Your task to perform on an android device: Go to network settings Image 0: 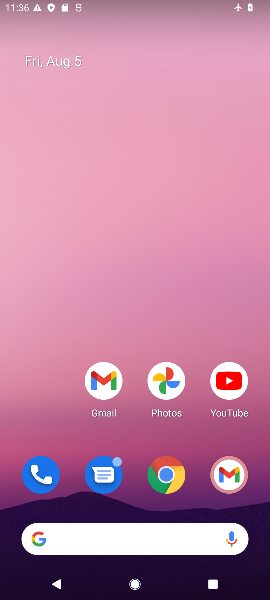
Step 0: drag from (160, 508) to (171, 127)
Your task to perform on an android device: Go to network settings Image 1: 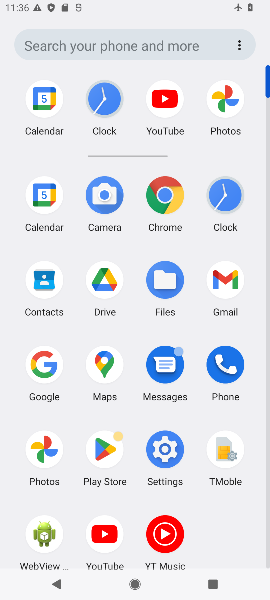
Step 1: click (154, 443)
Your task to perform on an android device: Go to network settings Image 2: 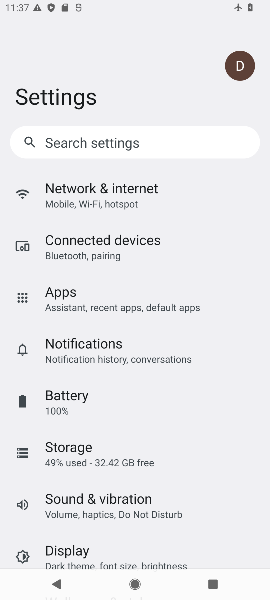
Step 2: click (100, 198)
Your task to perform on an android device: Go to network settings Image 3: 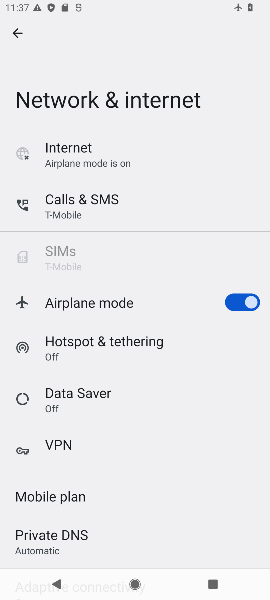
Step 3: task complete